Your task to perform on an android device: Is it going to rain today? Image 0: 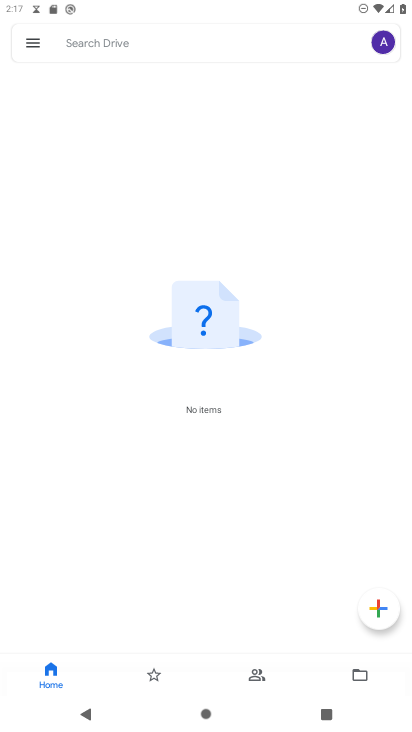
Step 0: press home button
Your task to perform on an android device: Is it going to rain today? Image 1: 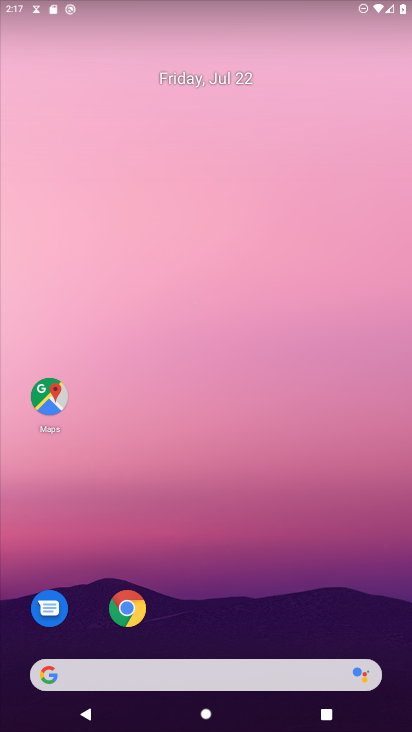
Step 1: click (171, 678)
Your task to perform on an android device: Is it going to rain today? Image 2: 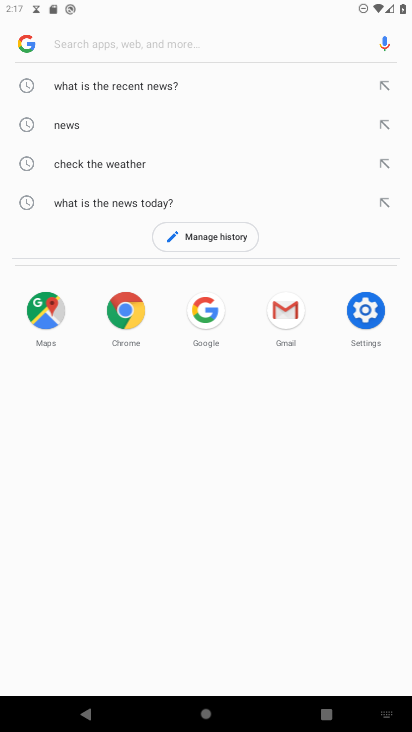
Step 2: type "is it going to rain today"
Your task to perform on an android device: Is it going to rain today? Image 3: 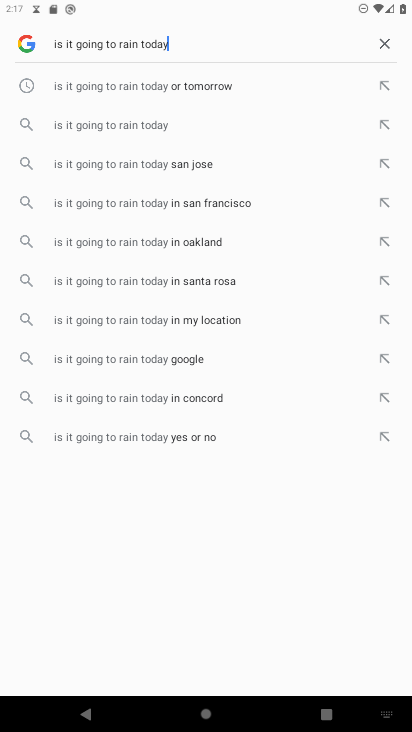
Step 3: click (96, 125)
Your task to perform on an android device: Is it going to rain today? Image 4: 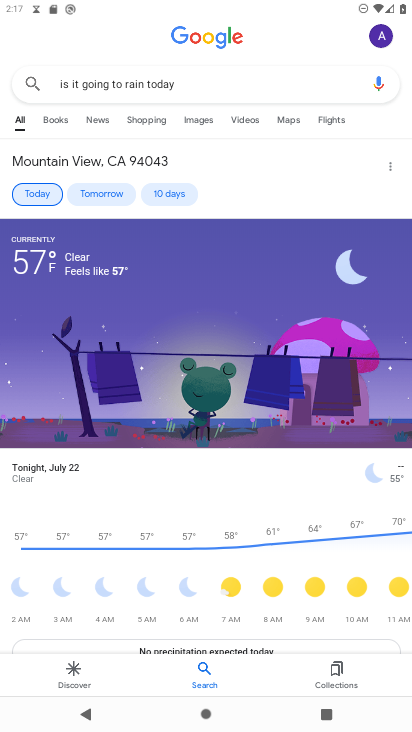
Step 4: task complete